Your task to perform on an android device: turn pop-ups off in chrome Image 0: 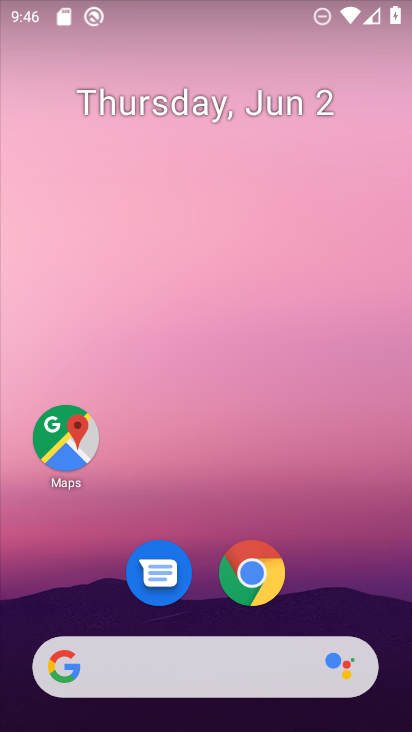
Step 0: click (253, 578)
Your task to perform on an android device: turn pop-ups off in chrome Image 1: 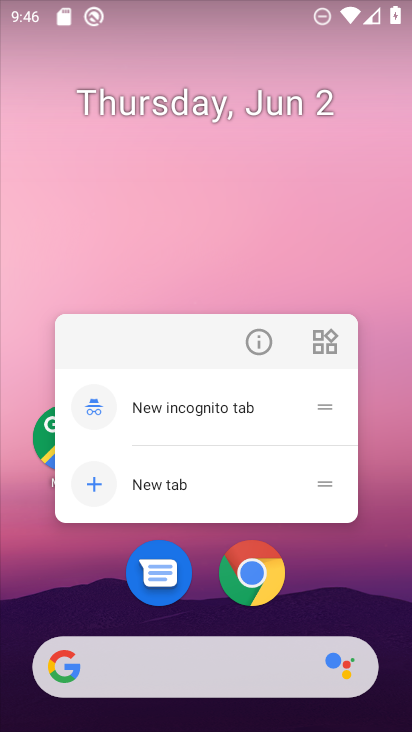
Step 1: click (251, 569)
Your task to perform on an android device: turn pop-ups off in chrome Image 2: 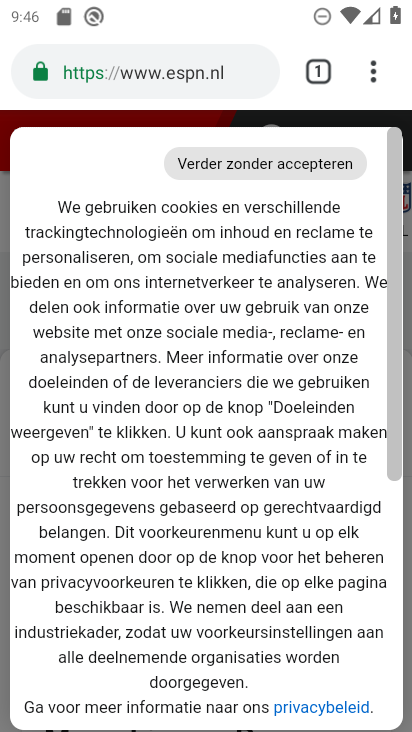
Step 2: drag from (379, 59) to (142, 576)
Your task to perform on an android device: turn pop-ups off in chrome Image 3: 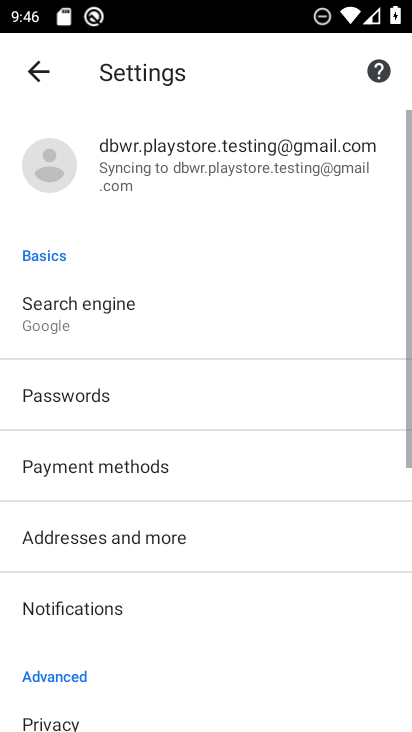
Step 3: drag from (223, 610) to (207, 281)
Your task to perform on an android device: turn pop-ups off in chrome Image 4: 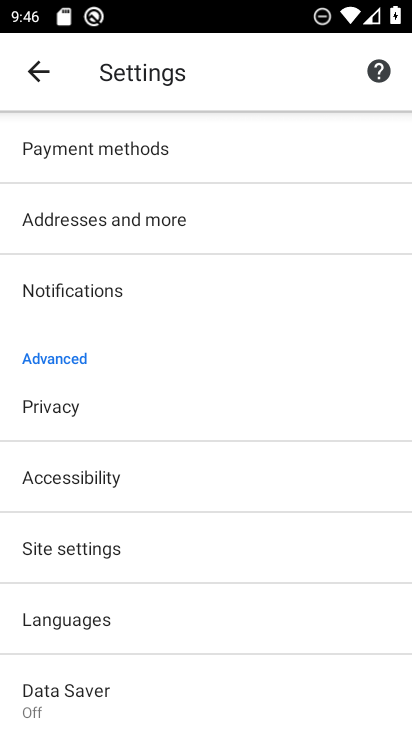
Step 4: click (80, 544)
Your task to perform on an android device: turn pop-ups off in chrome Image 5: 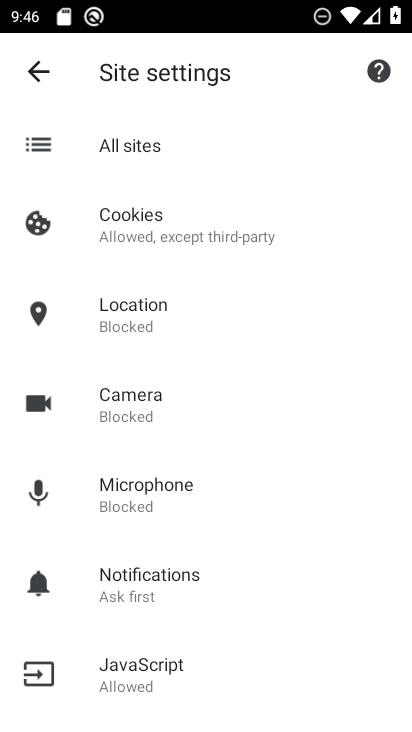
Step 5: drag from (207, 641) to (172, 286)
Your task to perform on an android device: turn pop-ups off in chrome Image 6: 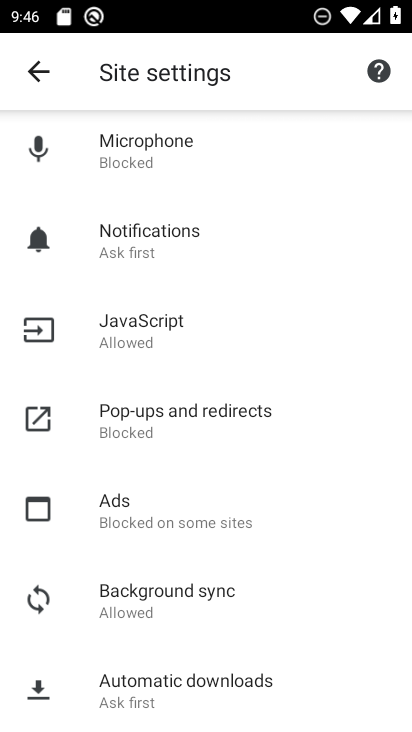
Step 6: click (148, 429)
Your task to perform on an android device: turn pop-ups off in chrome Image 7: 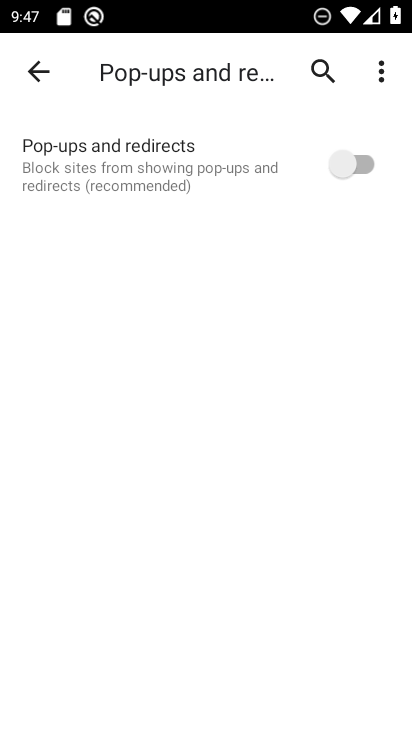
Step 7: task complete